Your task to perform on an android device: Open the web browser Image 0: 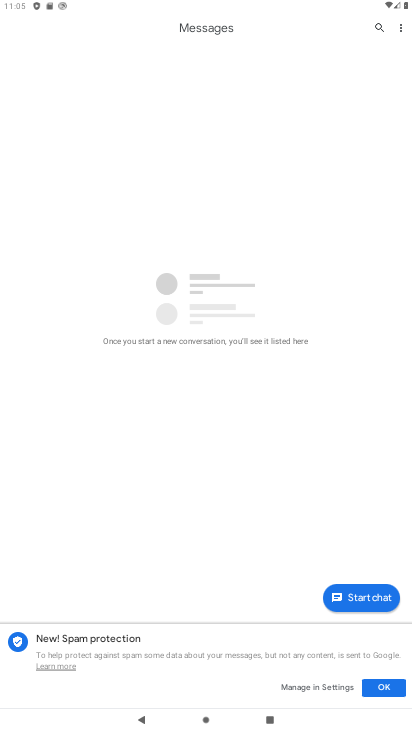
Step 0: press home button
Your task to perform on an android device: Open the web browser Image 1: 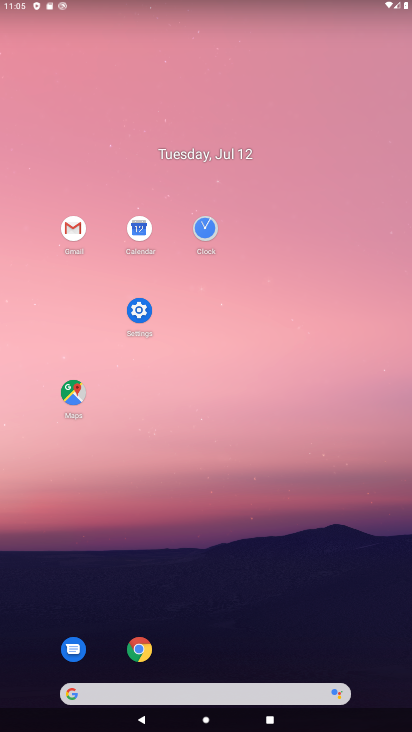
Step 1: click (139, 656)
Your task to perform on an android device: Open the web browser Image 2: 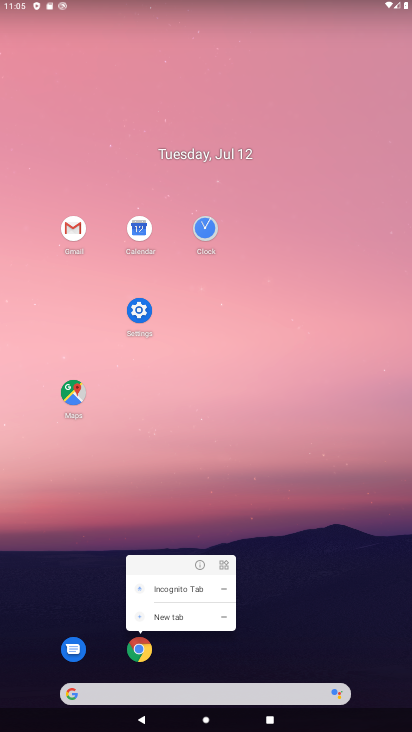
Step 2: click (139, 656)
Your task to perform on an android device: Open the web browser Image 3: 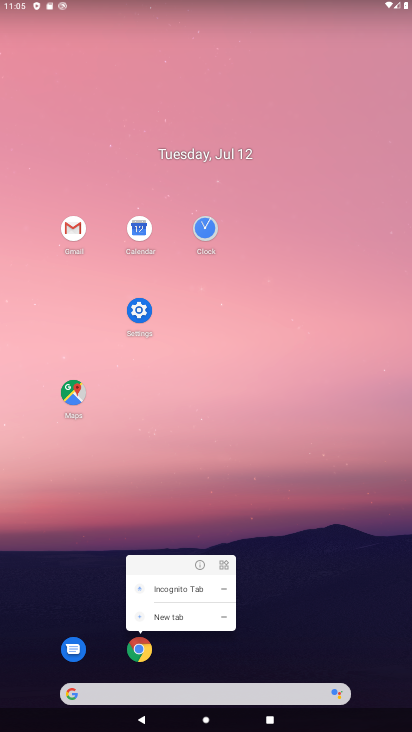
Step 3: click (139, 656)
Your task to perform on an android device: Open the web browser Image 4: 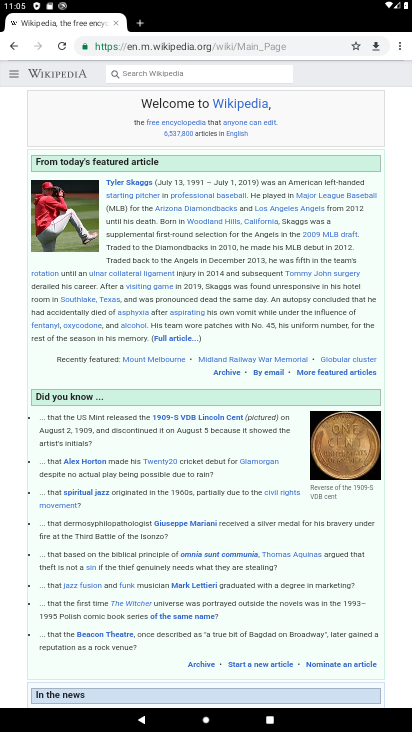
Step 4: task complete